Your task to perform on an android device: check out phone information Image 0: 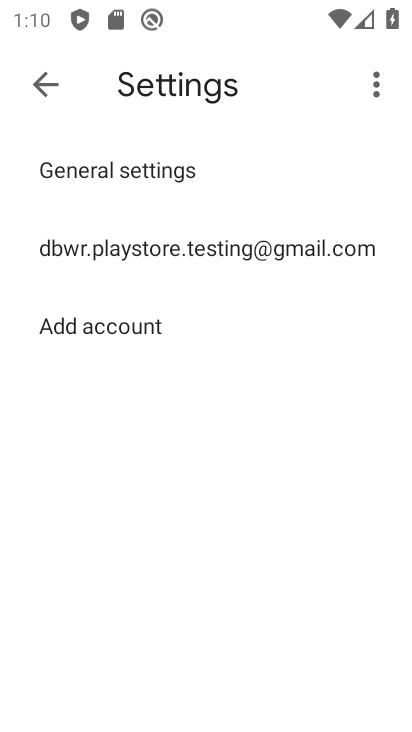
Step 0: press home button
Your task to perform on an android device: check out phone information Image 1: 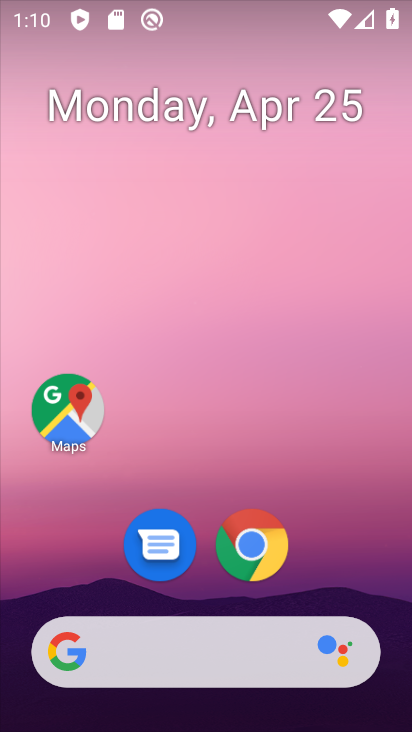
Step 1: drag from (306, 375) to (296, 112)
Your task to perform on an android device: check out phone information Image 2: 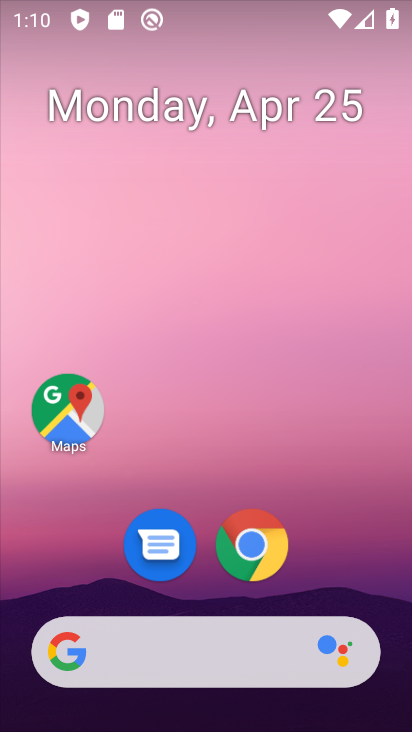
Step 2: drag from (324, 369) to (295, 8)
Your task to perform on an android device: check out phone information Image 3: 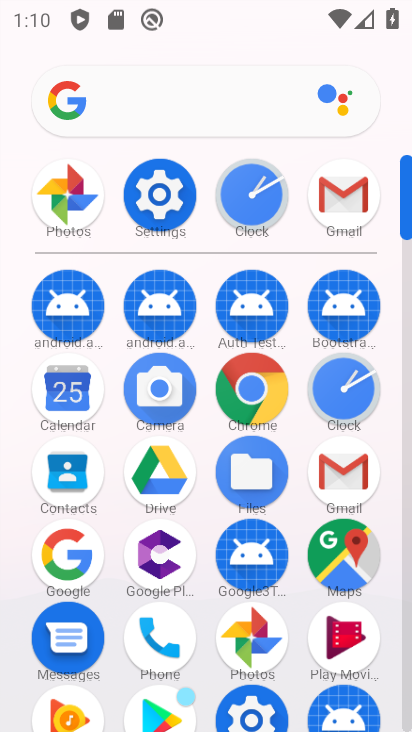
Step 3: click (161, 184)
Your task to perform on an android device: check out phone information Image 4: 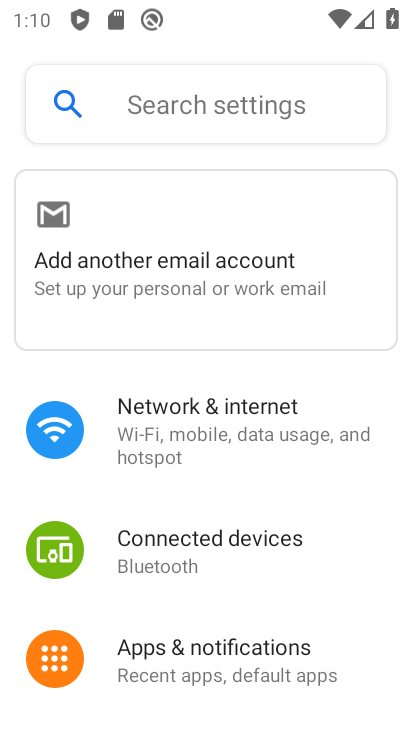
Step 4: drag from (238, 553) to (216, 109)
Your task to perform on an android device: check out phone information Image 5: 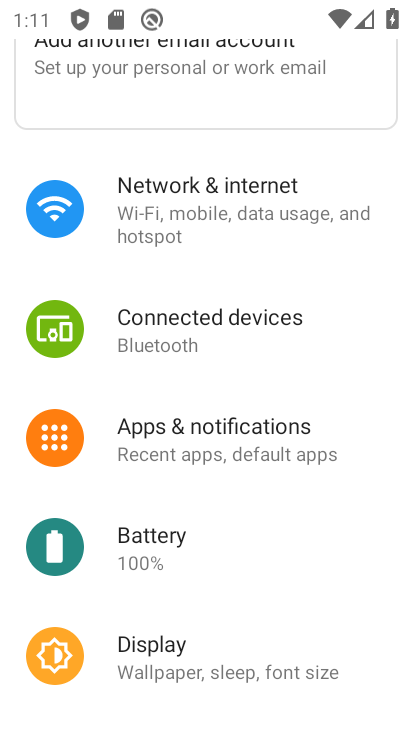
Step 5: drag from (266, 573) to (250, 183)
Your task to perform on an android device: check out phone information Image 6: 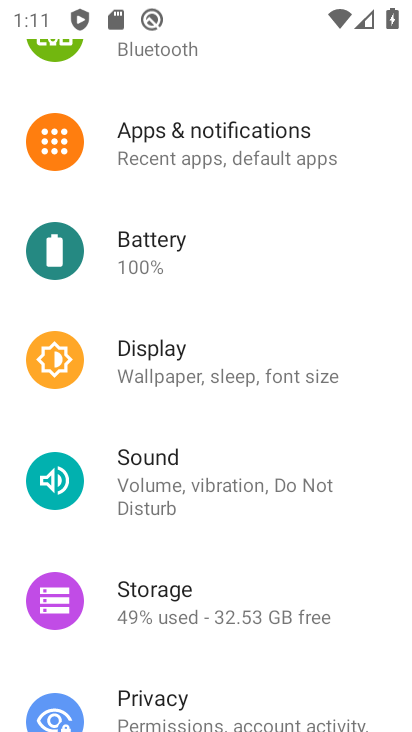
Step 6: drag from (267, 537) to (262, 173)
Your task to perform on an android device: check out phone information Image 7: 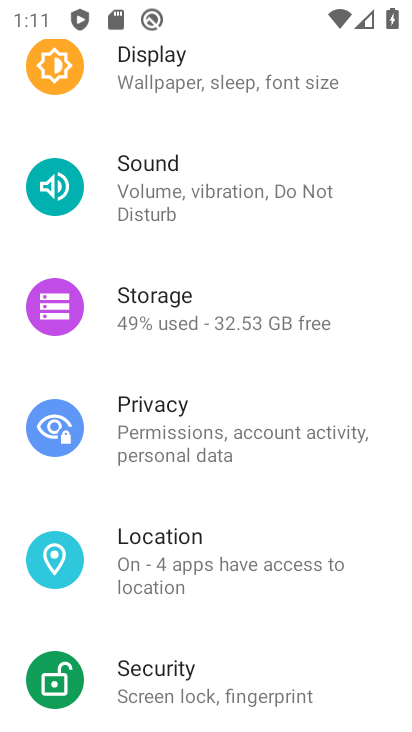
Step 7: drag from (290, 616) to (282, 290)
Your task to perform on an android device: check out phone information Image 8: 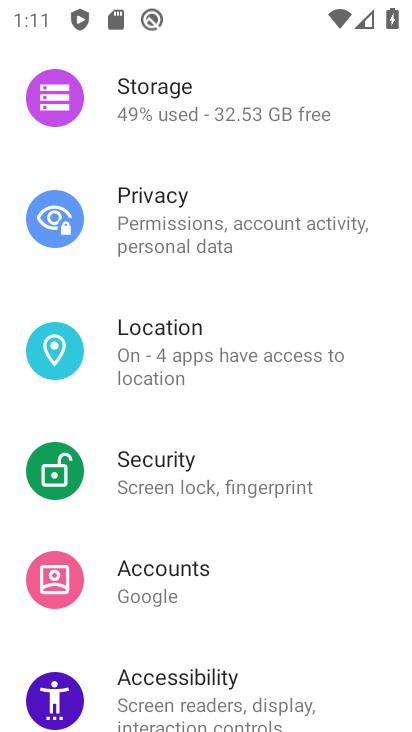
Step 8: drag from (267, 570) to (297, 218)
Your task to perform on an android device: check out phone information Image 9: 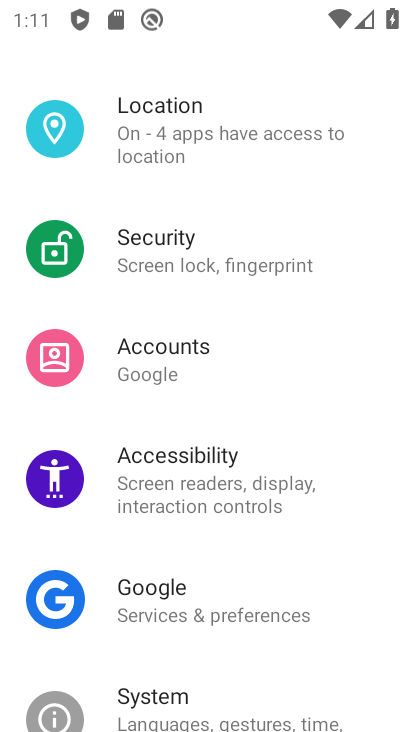
Step 9: drag from (256, 661) to (251, 371)
Your task to perform on an android device: check out phone information Image 10: 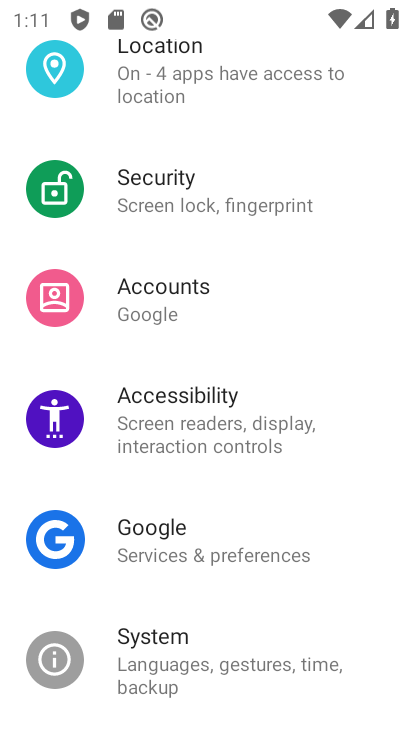
Step 10: drag from (243, 606) to (276, 250)
Your task to perform on an android device: check out phone information Image 11: 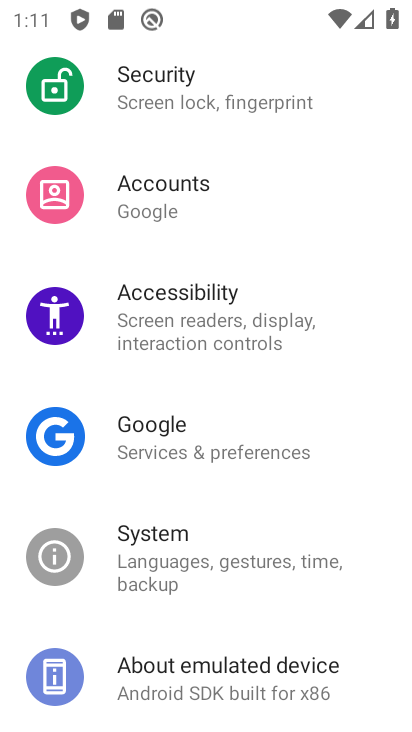
Step 11: click (233, 686)
Your task to perform on an android device: check out phone information Image 12: 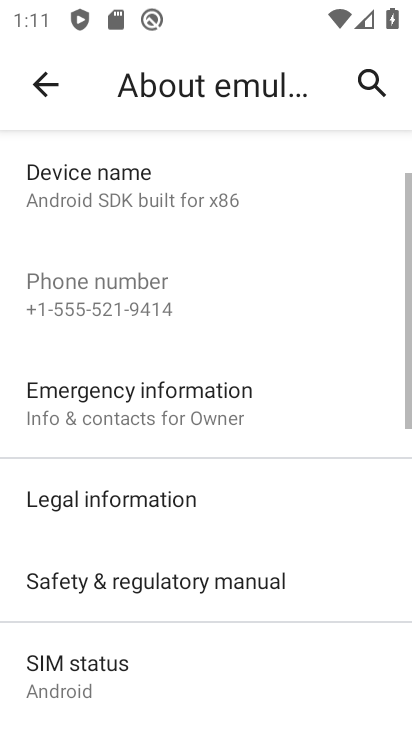
Step 12: task complete